Your task to perform on an android device: turn off smart reply in the gmail app Image 0: 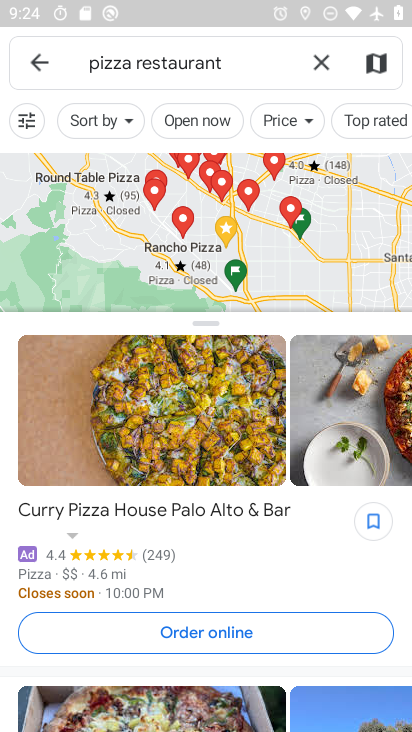
Step 0: press home button
Your task to perform on an android device: turn off smart reply in the gmail app Image 1: 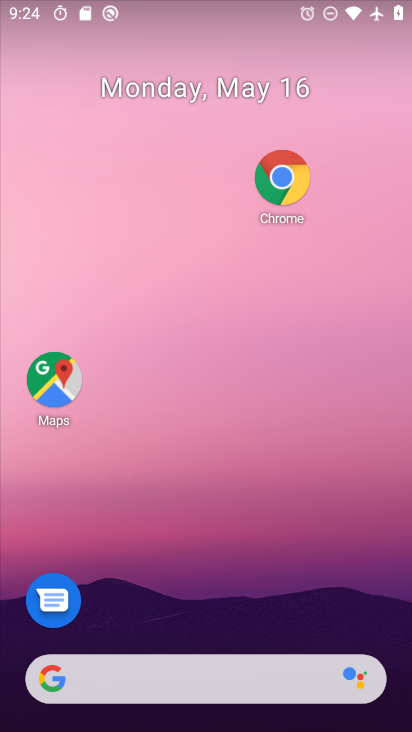
Step 1: drag from (208, 677) to (298, 209)
Your task to perform on an android device: turn off smart reply in the gmail app Image 2: 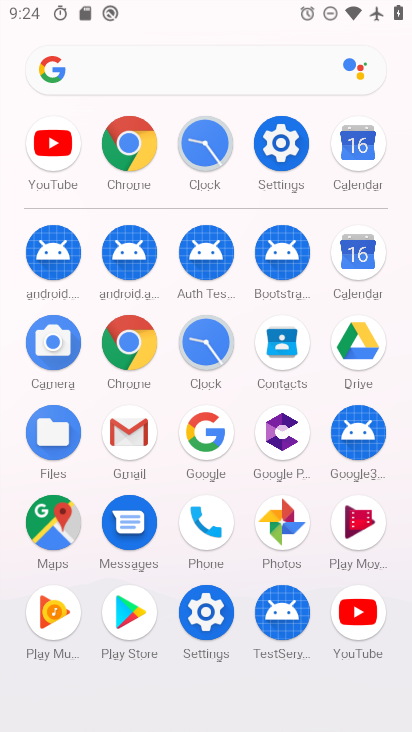
Step 2: click (134, 436)
Your task to perform on an android device: turn off smart reply in the gmail app Image 3: 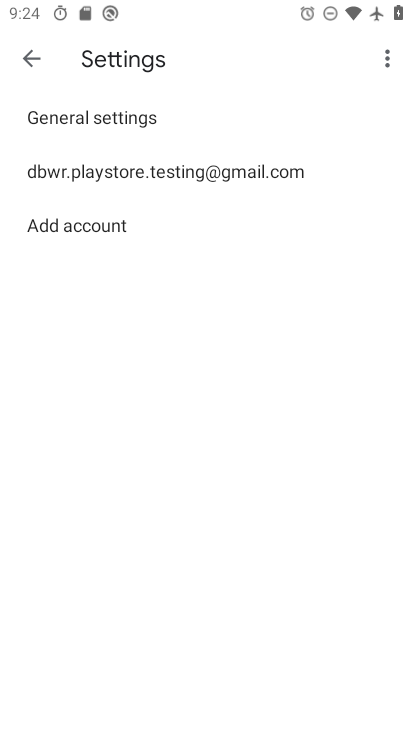
Step 3: click (145, 171)
Your task to perform on an android device: turn off smart reply in the gmail app Image 4: 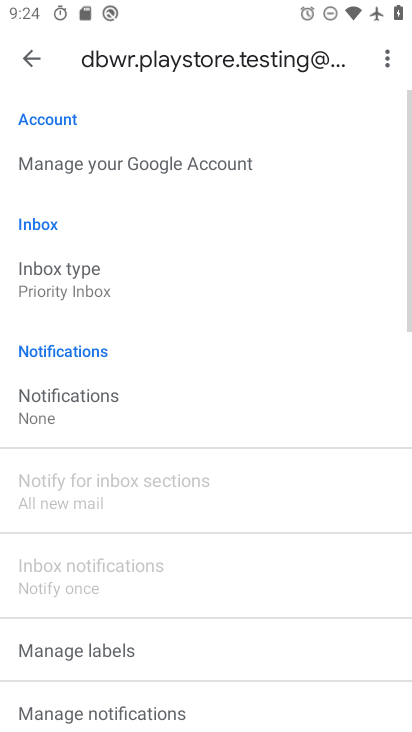
Step 4: task complete